Your task to perform on an android device: toggle airplane mode Image 0: 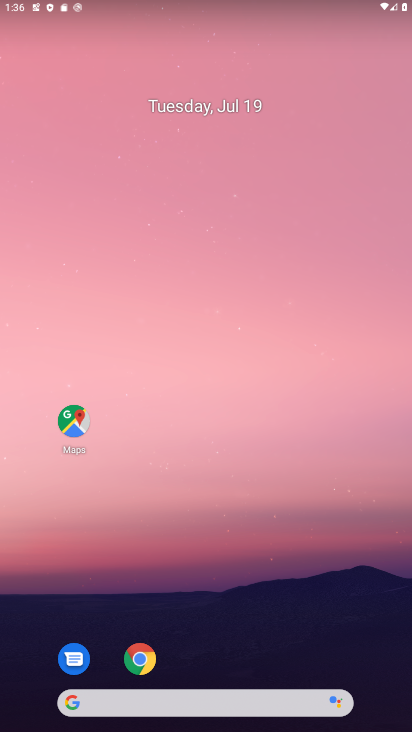
Step 0: drag from (380, 6) to (245, 587)
Your task to perform on an android device: toggle airplane mode Image 1: 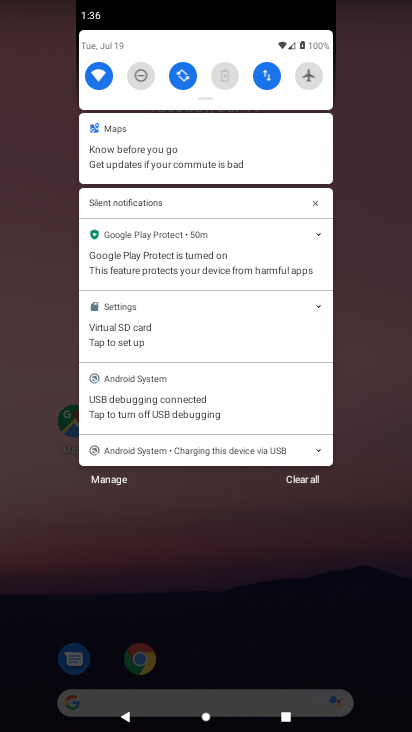
Step 1: click (309, 79)
Your task to perform on an android device: toggle airplane mode Image 2: 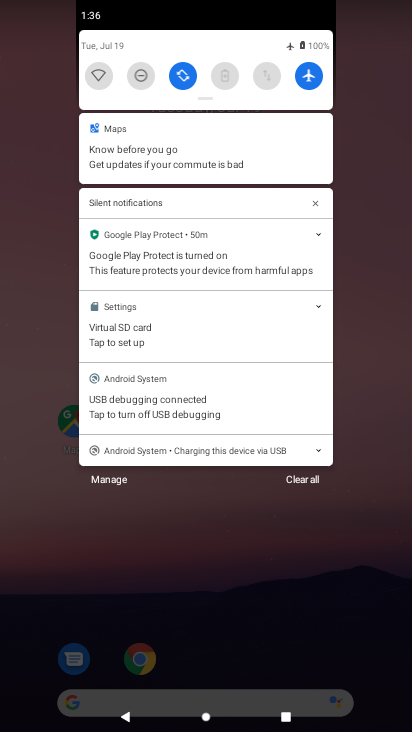
Step 2: task complete